Your task to perform on an android device: What's the weather going to be this weekend? Image 0: 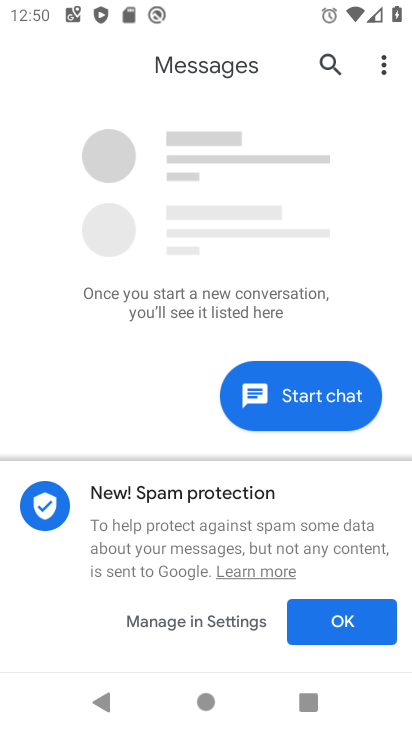
Step 0: click (102, 416)
Your task to perform on an android device: What's the weather going to be this weekend? Image 1: 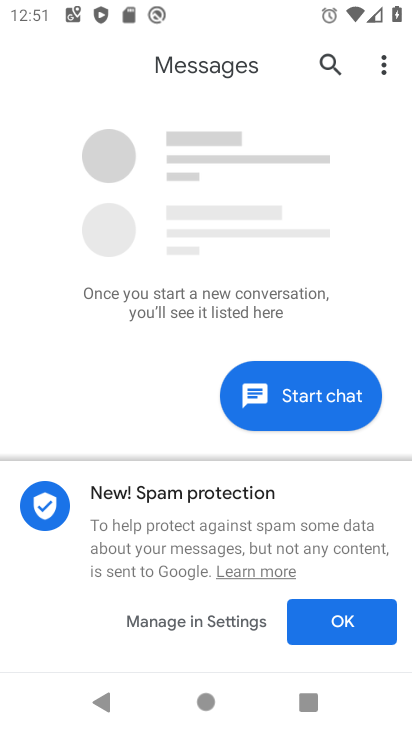
Step 1: press home button
Your task to perform on an android device: What's the weather going to be this weekend? Image 2: 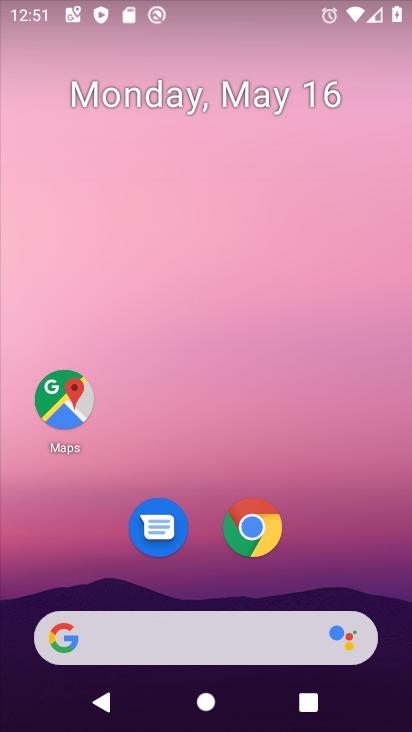
Step 2: drag from (322, 508) to (356, 28)
Your task to perform on an android device: What's the weather going to be this weekend? Image 3: 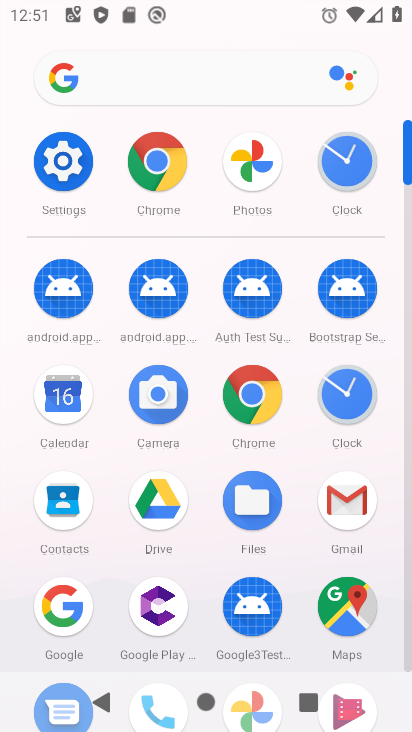
Step 3: click (49, 182)
Your task to perform on an android device: What's the weather going to be this weekend? Image 4: 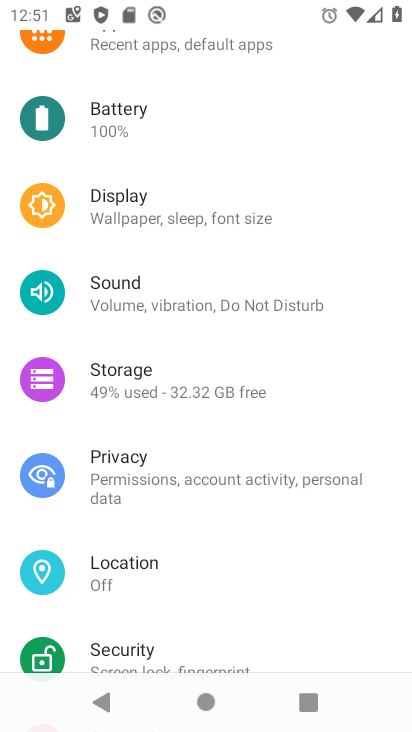
Step 4: drag from (189, 555) to (231, 346)
Your task to perform on an android device: What's the weather going to be this weekend? Image 5: 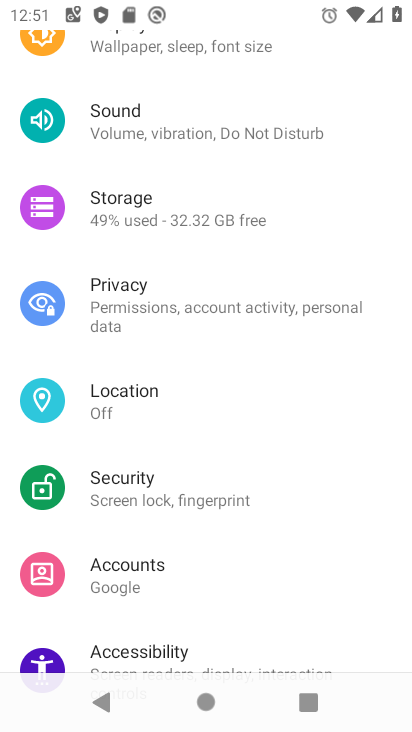
Step 5: drag from (206, 200) to (228, 629)
Your task to perform on an android device: What's the weather going to be this weekend? Image 6: 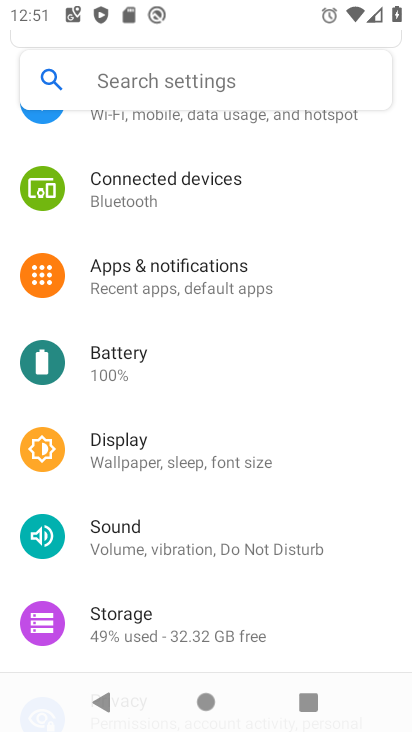
Step 6: press home button
Your task to perform on an android device: What's the weather going to be this weekend? Image 7: 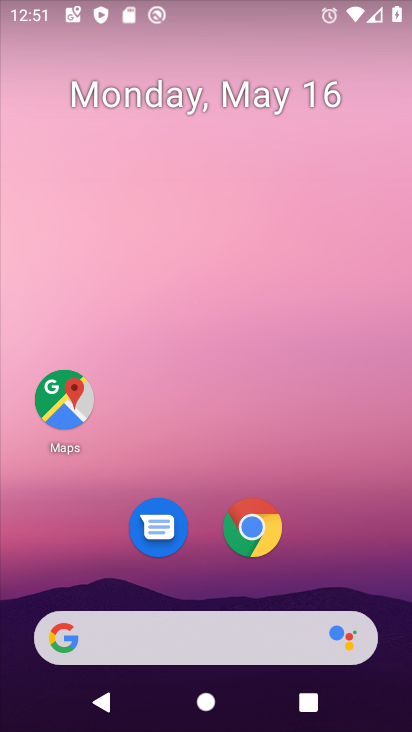
Step 7: click (175, 644)
Your task to perform on an android device: What's the weather going to be this weekend? Image 8: 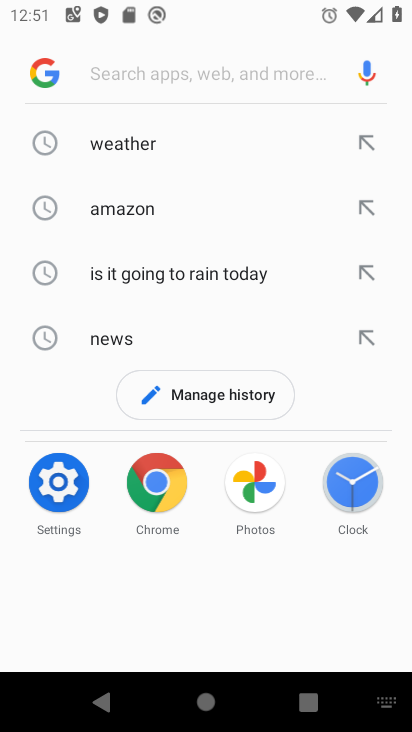
Step 8: click (209, 160)
Your task to perform on an android device: What's the weather going to be this weekend? Image 9: 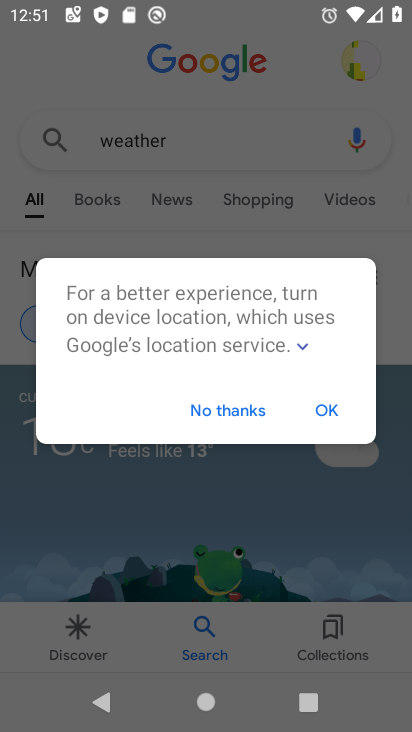
Step 9: click (320, 432)
Your task to perform on an android device: What's the weather going to be this weekend? Image 10: 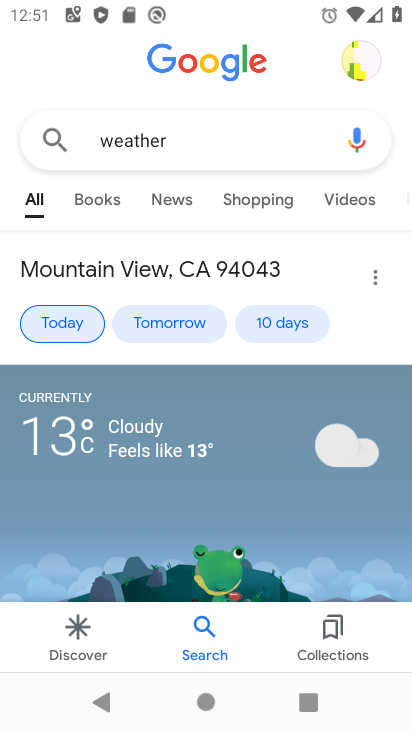
Step 10: click (195, 332)
Your task to perform on an android device: What's the weather going to be this weekend? Image 11: 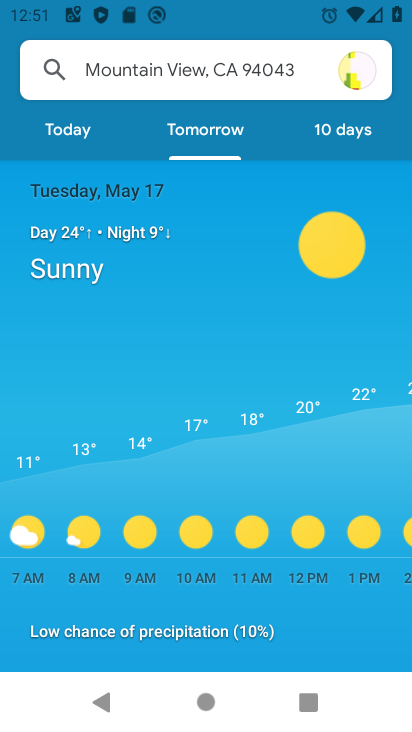
Step 11: task complete